Your task to perform on an android device: When is my next meeting? Image 0: 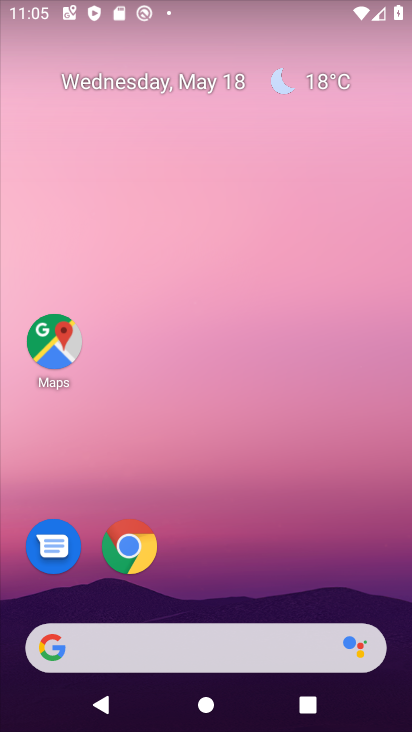
Step 0: drag from (232, 715) to (219, 156)
Your task to perform on an android device: When is my next meeting? Image 1: 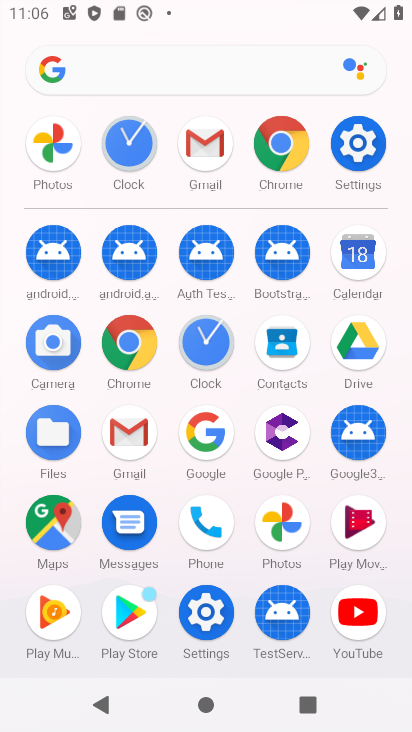
Step 1: click (352, 265)
Your task to perform on an android device: When is my next meeting? Image 2: 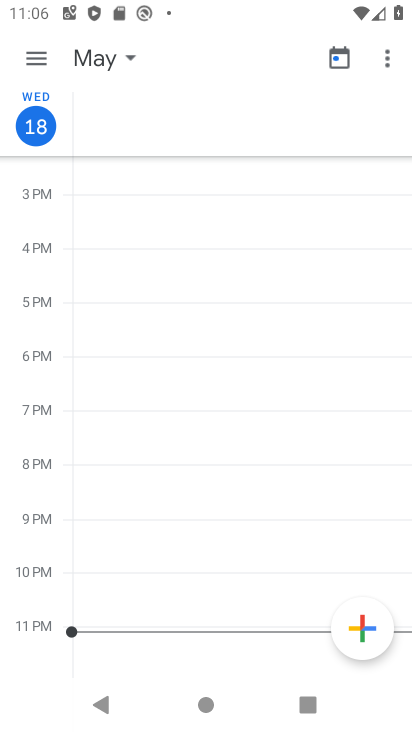
Step 2: click (99, 51)
Your task to perform on an android device: When is my next meeting? Image 3: 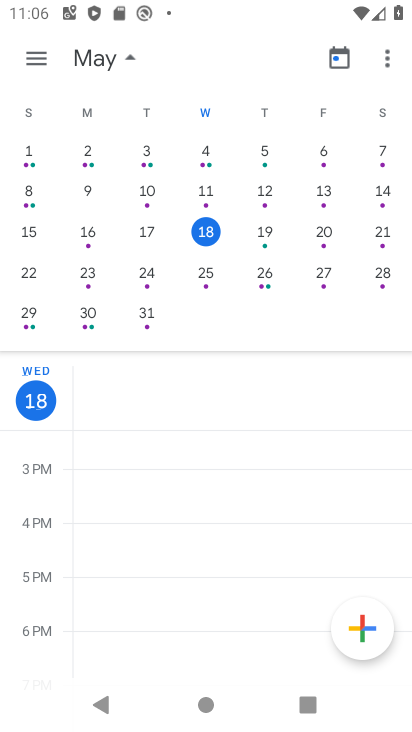
Step 3: click (33, 55)
Your task to perform on an android device: When is my next meeting? Image 4: 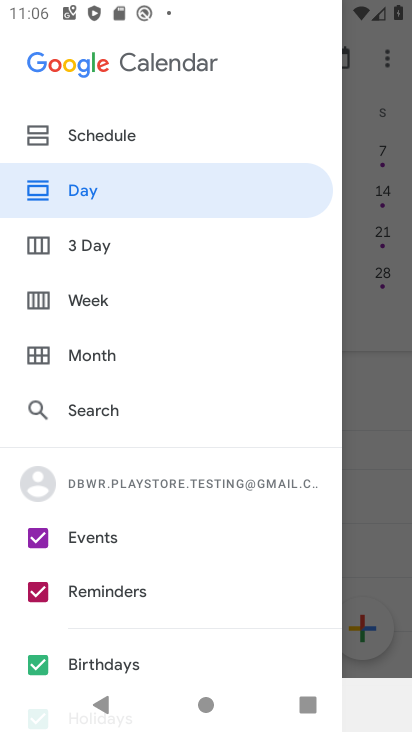
Step 4: drag from (112, 601) to (123, 445)
Your task to perform on an android device: When is my next meeting? Image 5: 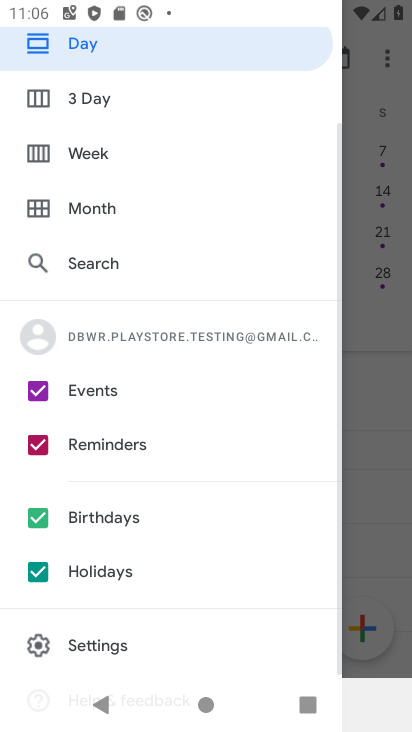
Step 5: drag from (197, 144) to (209, 352)
Your task to perform on an android device: When is my next meeting? Image 6: 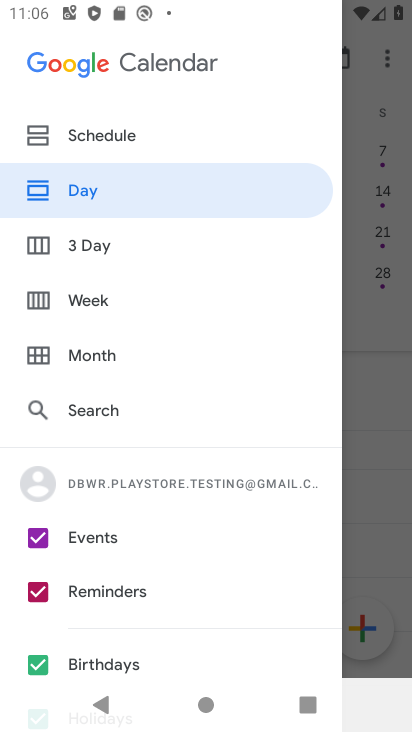
Step 6: click (103, 136)
Your task to perform on an android device: When is my next meeting? Image 7: 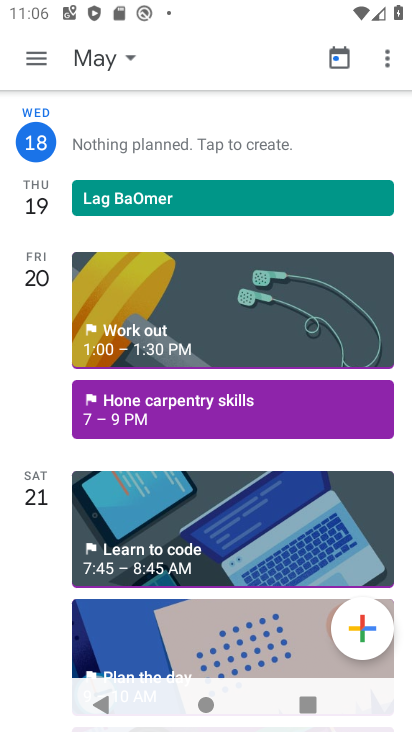
Step 7: click (108, 53)
Your task to perform on an android device: When is my next meeting? Image 8: 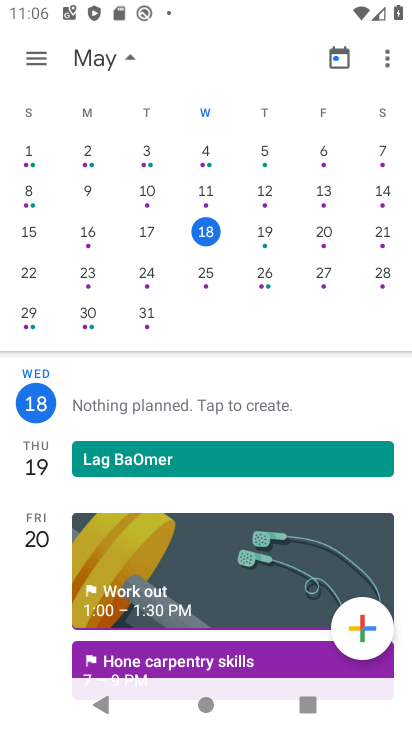
Step 8: click (267, 226)
Your task to perform on an android device: When is my next meeting? Image 9: 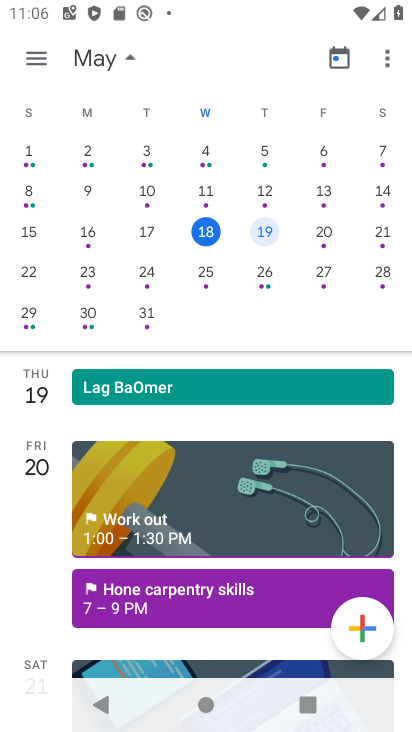
Step 9: click (265, 230)
Your task to perform on an android device: When is my next meeting? Image 10: 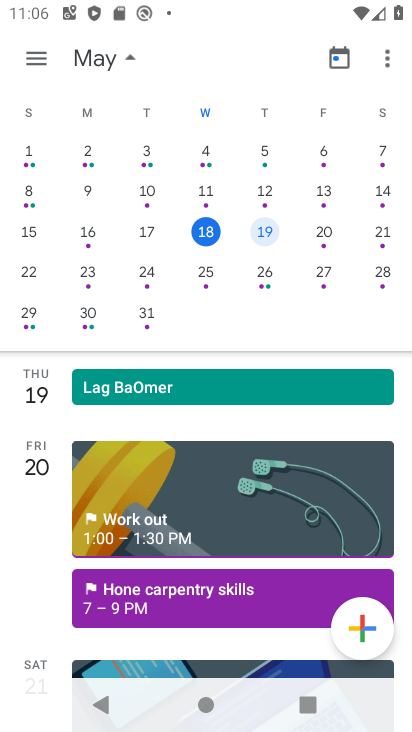
Step 10: click (195, 387)
Your task to perform on an android device: When is my next meeting? Image 11: 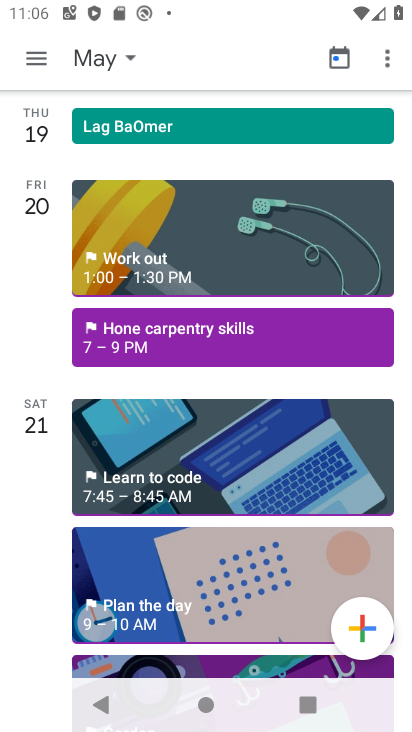
Step 11: task complete